Your task to perform on an android device: turn on data saver in the chrome app Image 0: 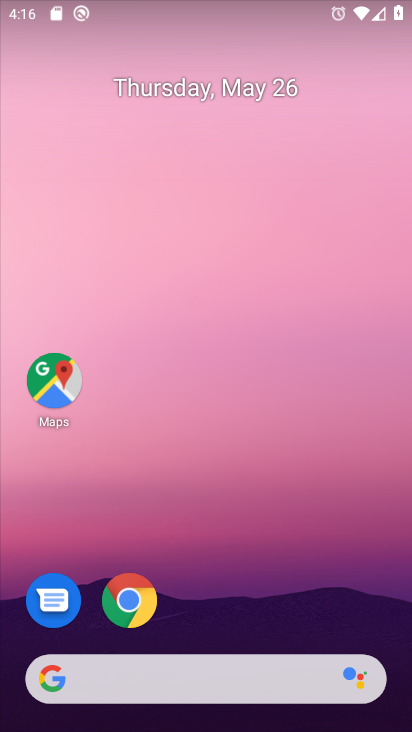
Step 0: click (139, 580)
Your task to perform on an android device: turn on data saver in the chrome app Image 1: 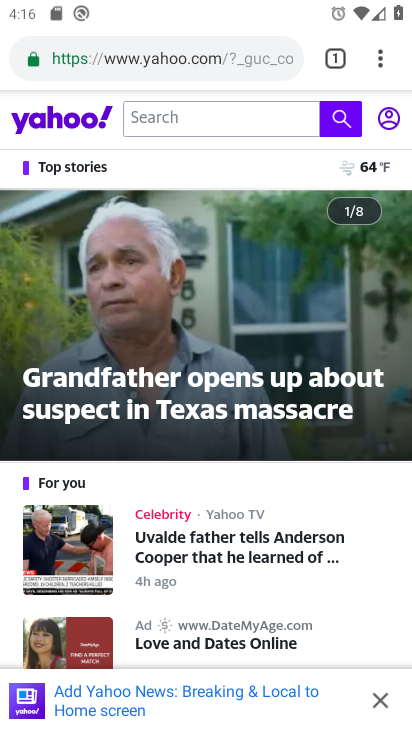
Step 1: click (373, 53)
Your task to perform on an android device: turn on data saver in the chrome app Image 2: 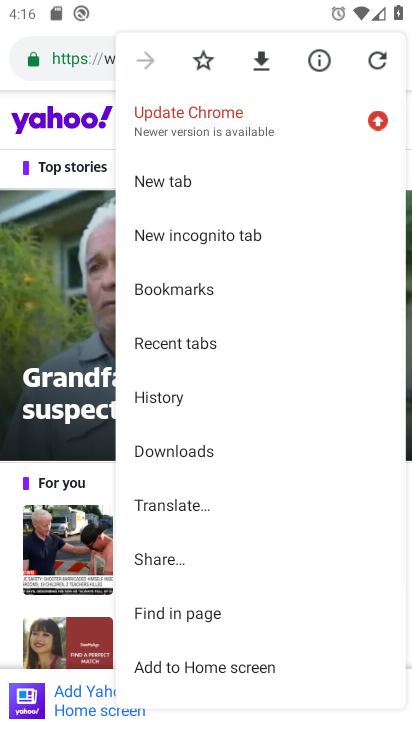
Step 2: drag from (162, 607) to (223, 368)
Your task to perform on an android device: turn on data saver in the chrome app Image 3: 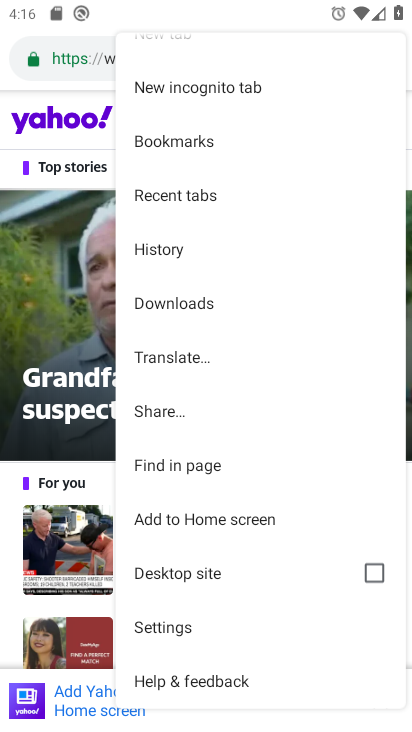
Step 3: click (167, 624)
Your task to perform on an android device: turn on data saver in the chrome app Image 4: 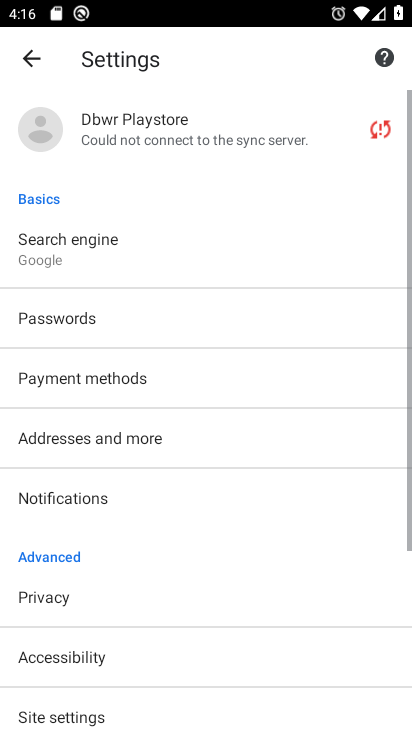
Step 4: drag from (132, 619) to (186, 219)
Your task to perform on an android device: turn on data saver in the chrome app Image 5: 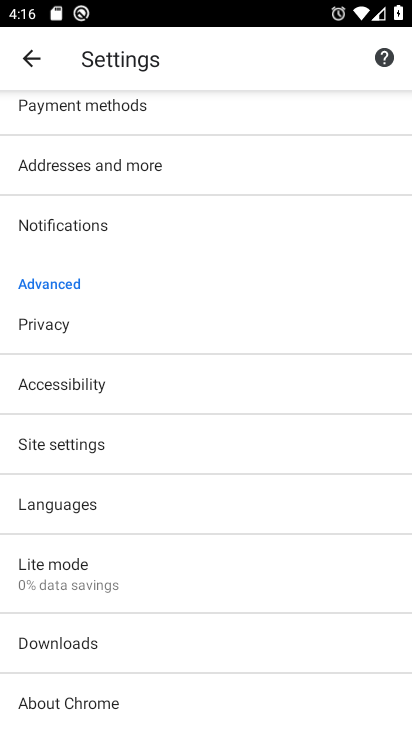
Step 5: click (106, 572)
Your task to perform on an android device: turn on data saver in the chrome app Image 6: 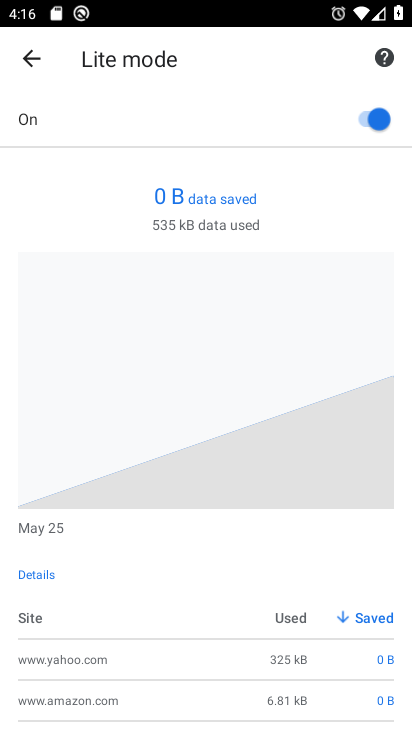
Step 6: task complete